Your task to perform on an android device: Toggle the flashlight Image 0: 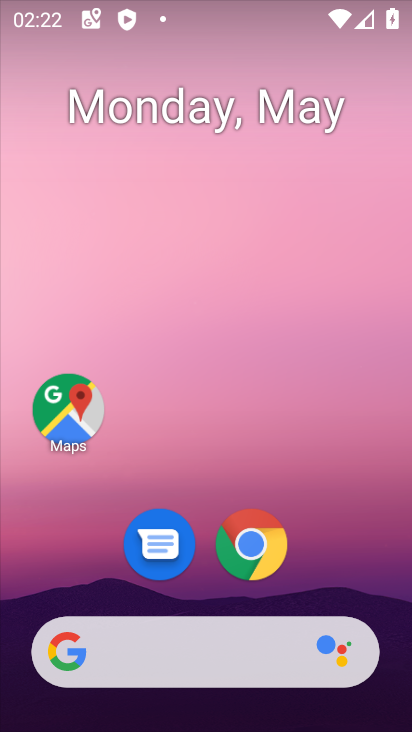
Step 0: drag from (229, 0) to (230, 325)
Your task to perform on an android device: Toggle the flashlight Image 1: 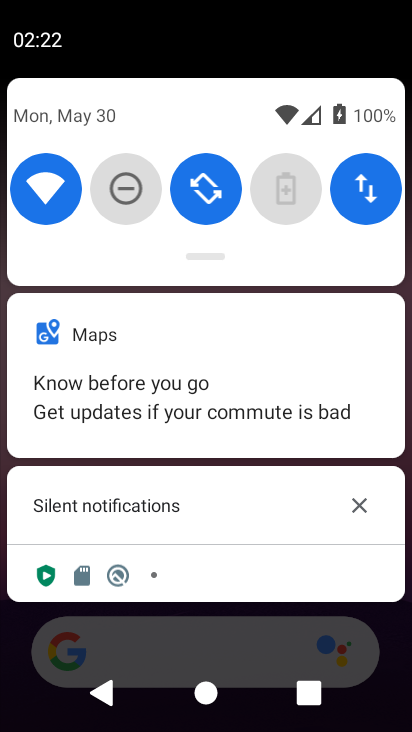
Step 1: drag from (238, 100) to (217, 340)
Your task to perform on an android device: Toggle the flashlight Image 2: 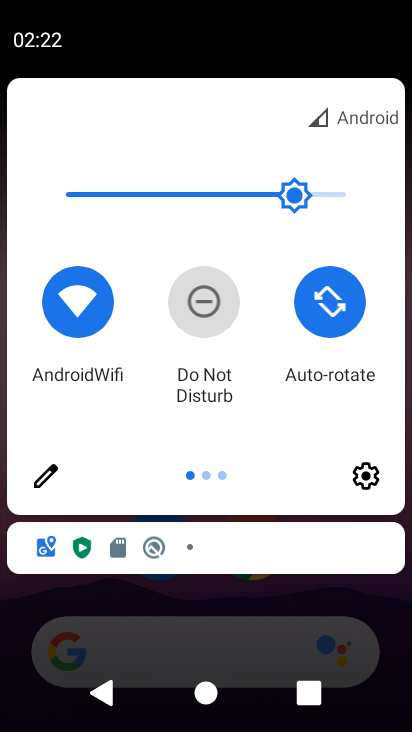
Step 2: click (38, 483)
Your task to perform on an android device: Toggle the flashlight Image 3: 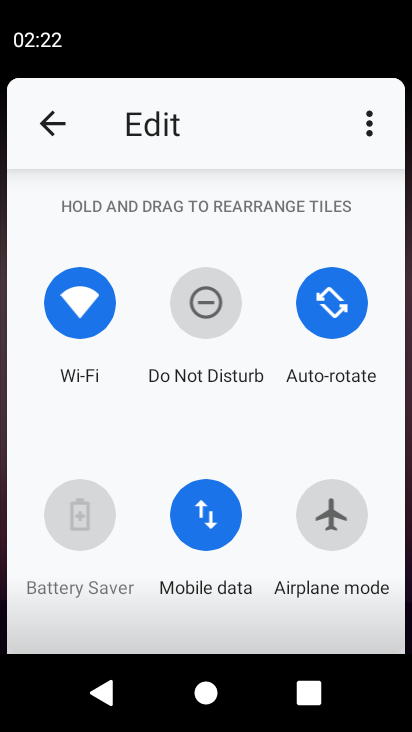
Step 3: task complete